Your task to perform on an android device: Open the map Image 0: 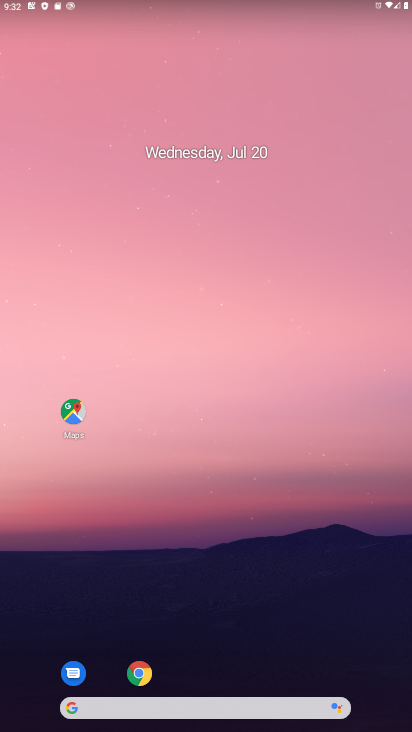
Step 0: drag from (202, 723) to (201, 183)
Your task to perform on an android device: Open the map Image 1: 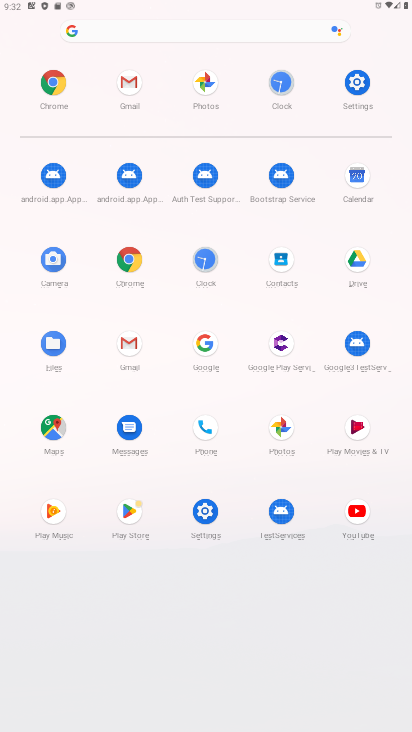
Step 1: click (53, 423)
Your task to perform on an android device: Open the map Image 2: 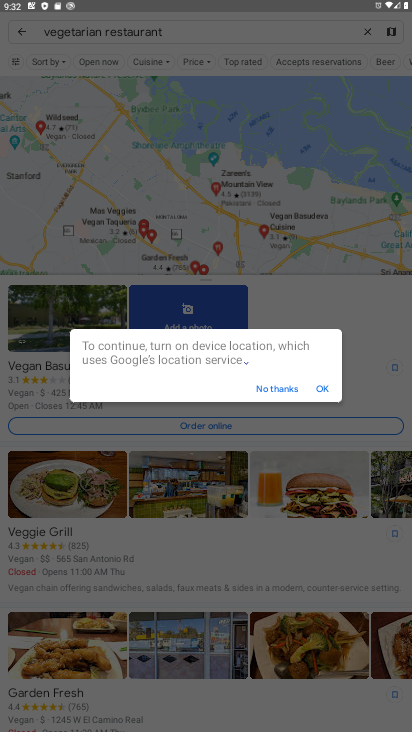
Step 2: click (326, 383)
Your task to perform on an android device: Open the map Image 3: 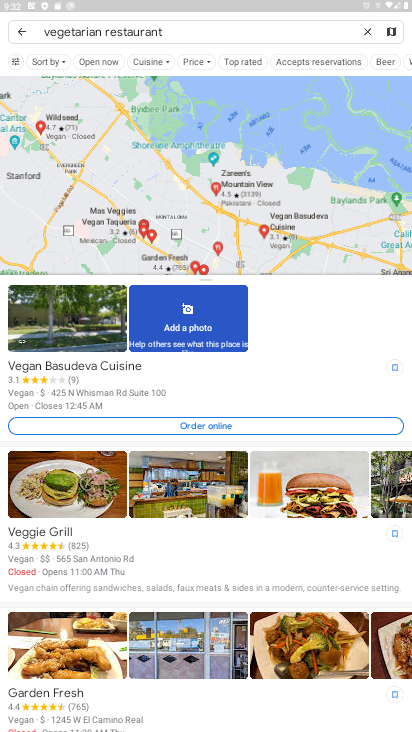
Step 3: task complete